Your task to perform on an android device: turn on notifications settings in the gmail app Image 0: 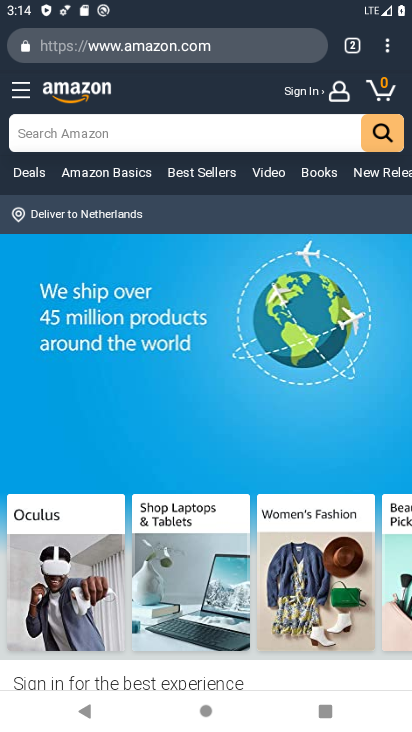
Step 0: press home button
Your task to perform on an android device: turn on notifications settings in the gmail app Image 1: 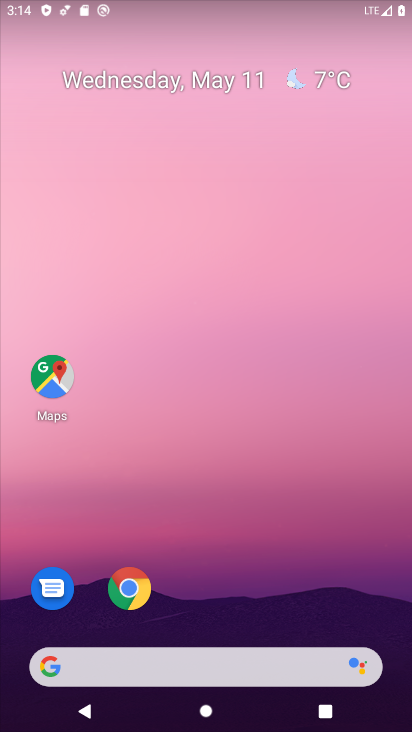
Step 1: drag from (254, 629) to (258, 192)
Your task to perform on an android device: turn on notifications settings in the gmail app Image 2: 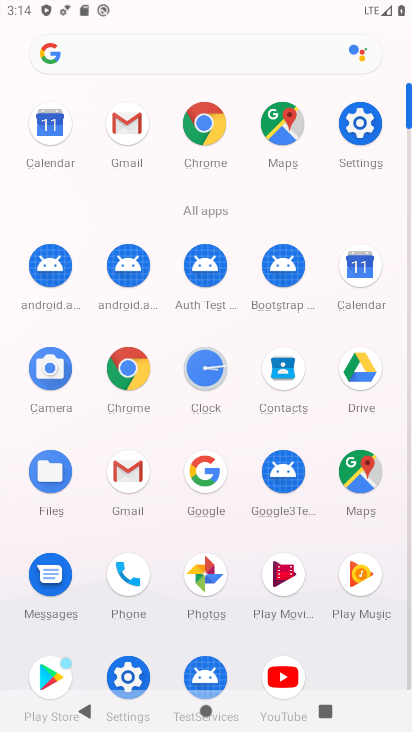
Step 2: click (133, 473)
Your task to perform on an android device: turn on notifications settings in the gmail app Image 3: 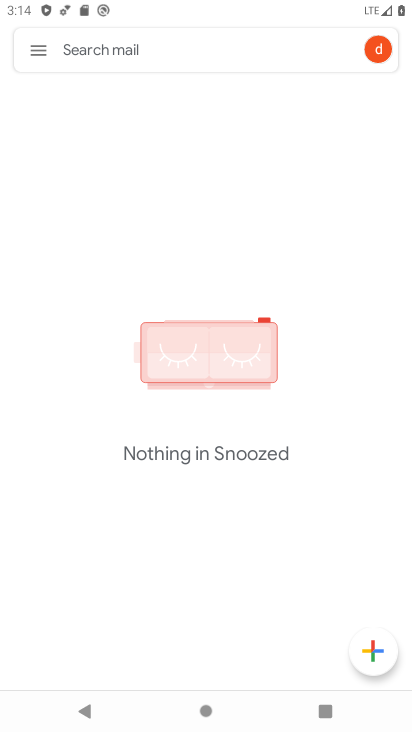
Step 3: click (38, 45)
Your task to perform on an android device: turn on notifications settings in the gmail app Image 4: 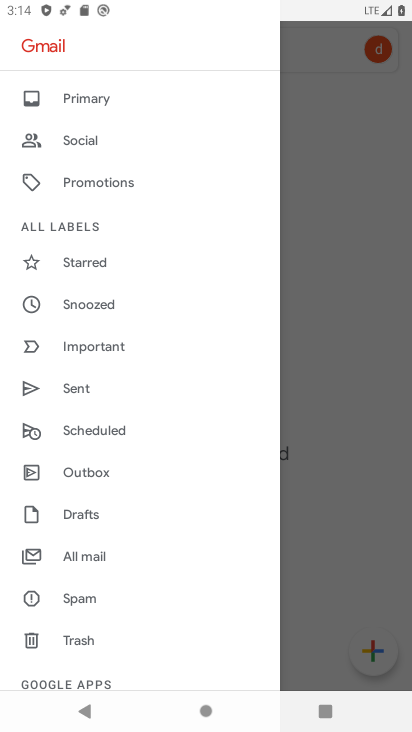
Step 4: drag from (96, 631) to (96, 348)
Your task to perform on an android device: turn on notifications settings in the gmail app Image 5: 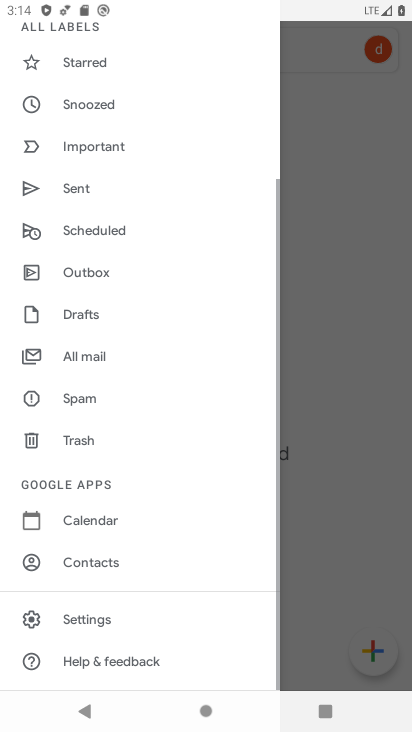
Step 5: click (85, 615)
Your task to perform on an android device: turn on notifications settings in the gmail app Image 6: 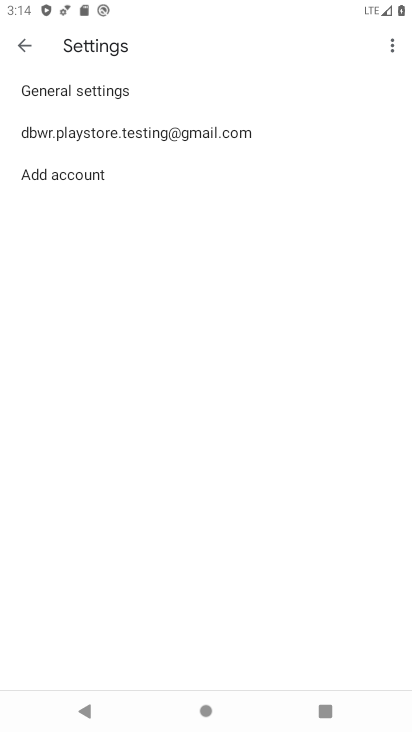
Step 6: click (174, 134)
Your task to perform on an android device: turn on notifications settings in the gmail app Image 7: 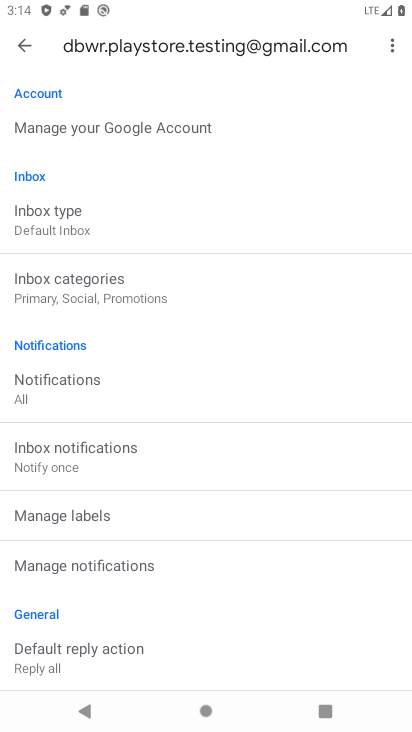
Step 7: click (60, 379)
Your task to perform on an android device: turn on notifications settings in the gmail app Image 8: 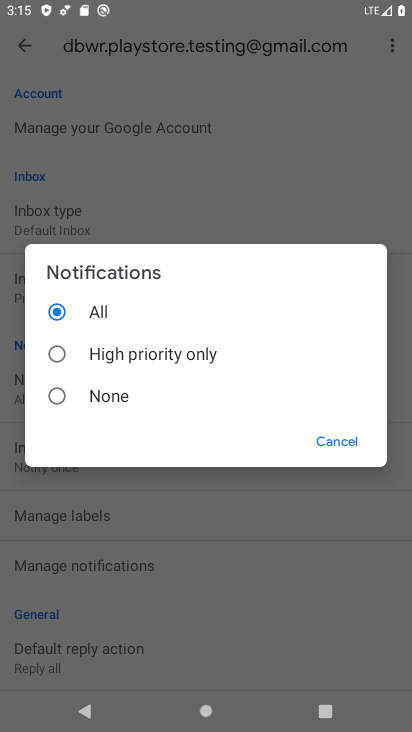
Step 8: click (343, 438)
Your task to perform on an android device: turn on notifications settings in the gmail app Image 9: 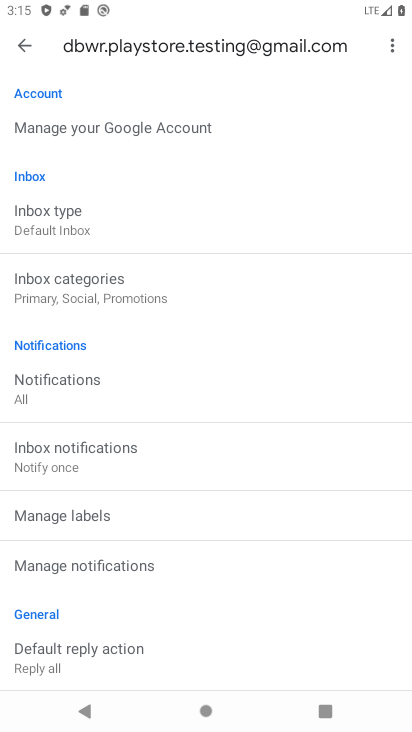
Step 9: task complete